Your task to perform on an android device: What is the news today? Image 0: 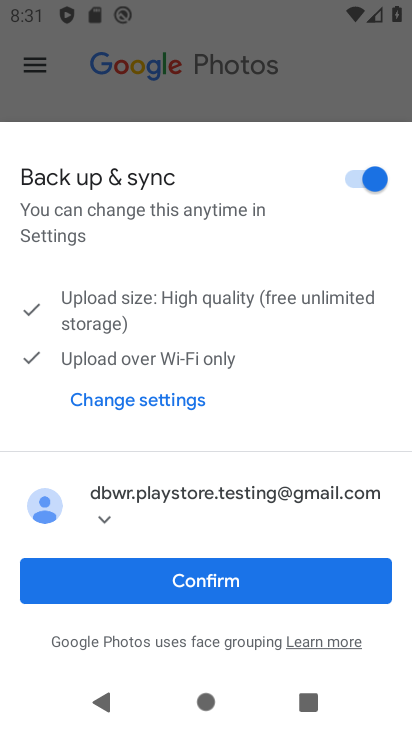
Step 0: press home button
Your task to perform on an android device: What is the news today? Image 1: 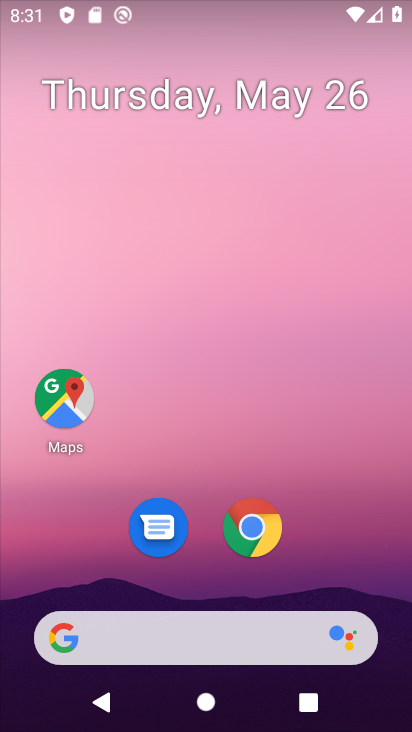
Step 1: click (255, 525)
Your task to perform on an android device: What is the news today? Image 2: 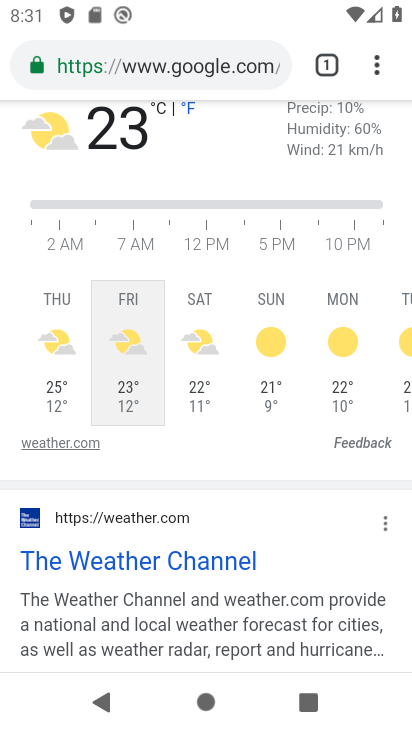
Step 2: click (229, 69)
Your task to perform on an android device: What is the news today? Image 3: 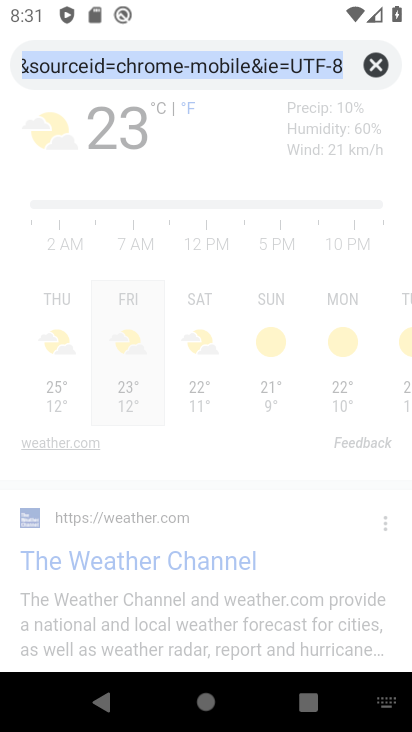
Step 3: type "news"
Your task to perform on an android device: What is the news today? Image 4: 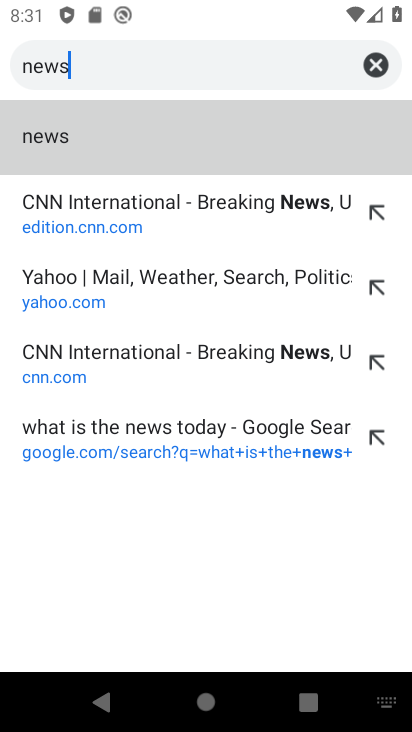
Step 4: click (59, 135)
Your task to perform on an android device: What is the news today? Image 5: 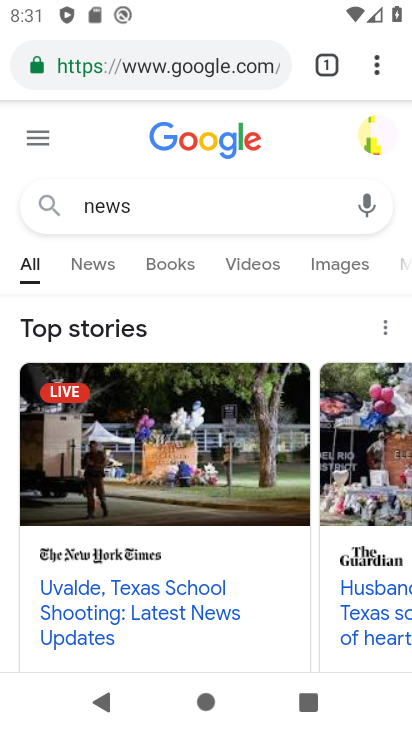
Step 5: click (112, 262)
Your task to perform on an android device: What is the news today? Image 6: 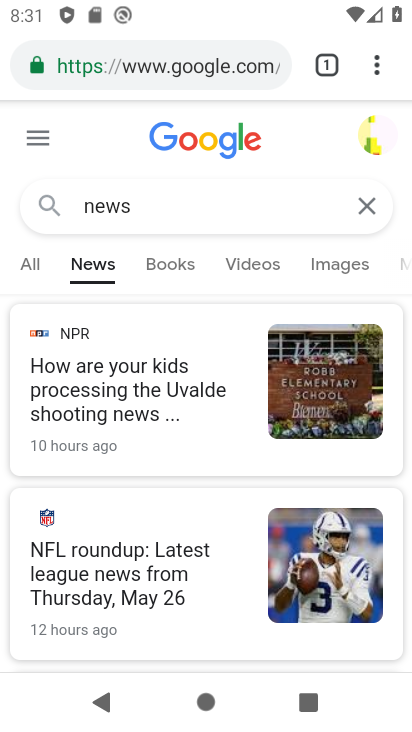
Step 6: task complete